Your task to perform on an android device: check android version Image 0: 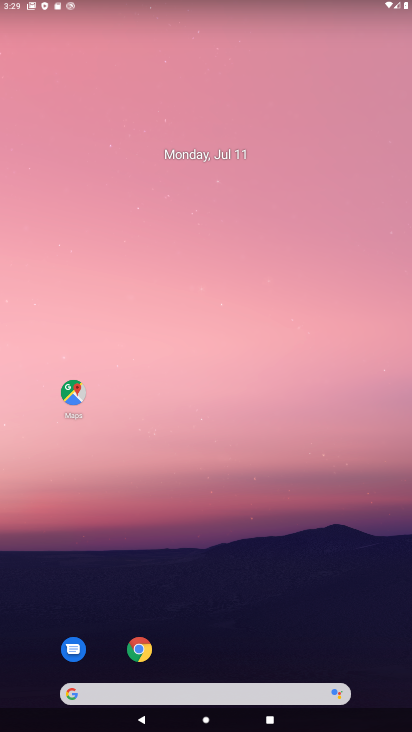
Step 0: drag from (286, 579) to (217, 8)
Your task to perform on an android device: check android version Image 1: 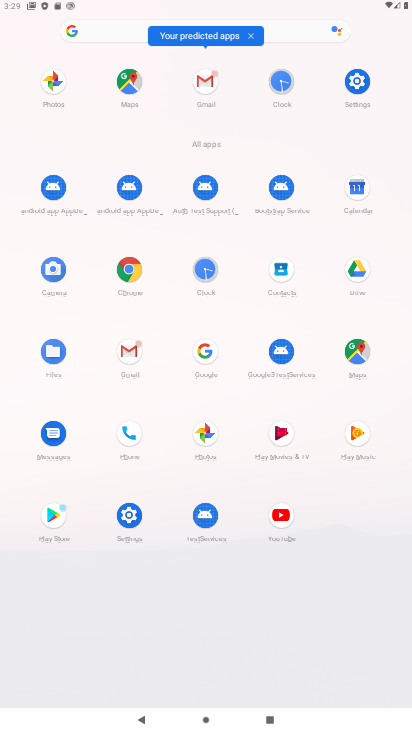
Step 1: click (126, 517)
Your task to perform on an android device: check android version Image 2: 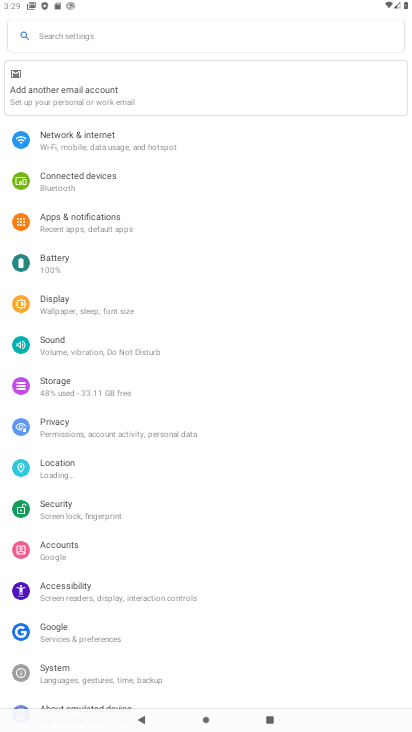
Step 2: drag from (295, 614) to (263, 48)
Your task to perform on an android device: check android version Image 3: 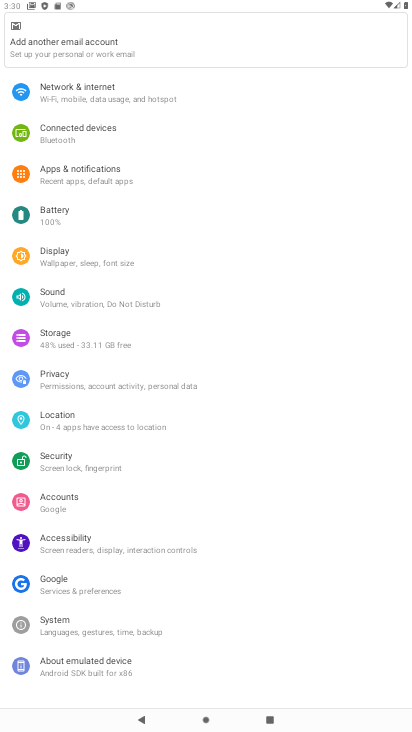
Step 3: click (61, 665)
Your task to perform on an android device: check android version Image 4: 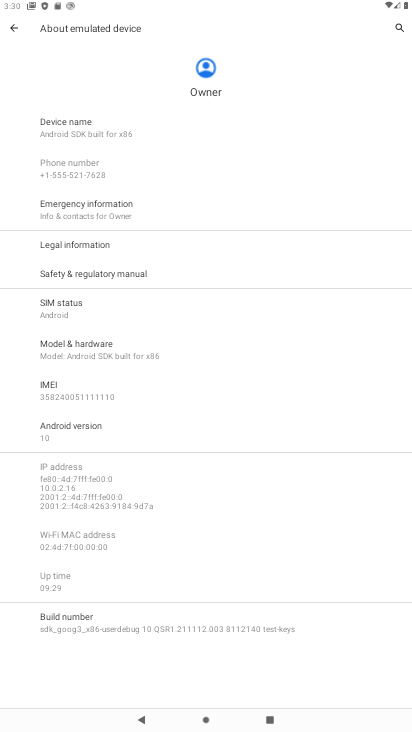
Step 4: click (88, 429)
Your task to perform on an android device: check android version Image 5: 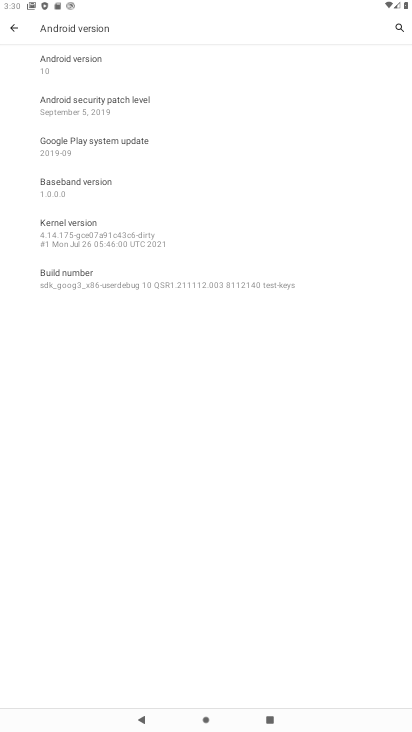
Step 5: task complete